Your task to perform on an android device: Open CNN.com Image 0: 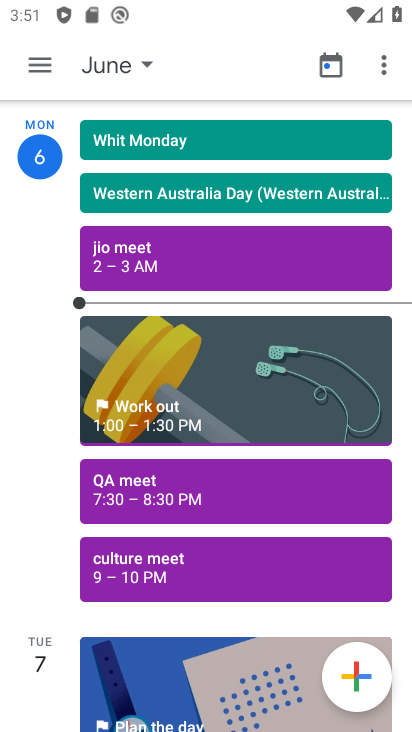
Step 0: press home button
Your task to perform on an android device: Open CNN.com Image 1: 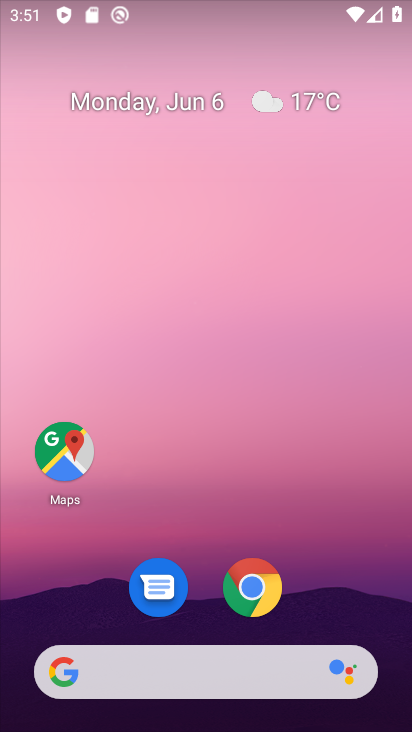
Step 1: drag from (17, 306) to (404, 268)
Your task to perform on an android device: Open CNN.com Image 2: 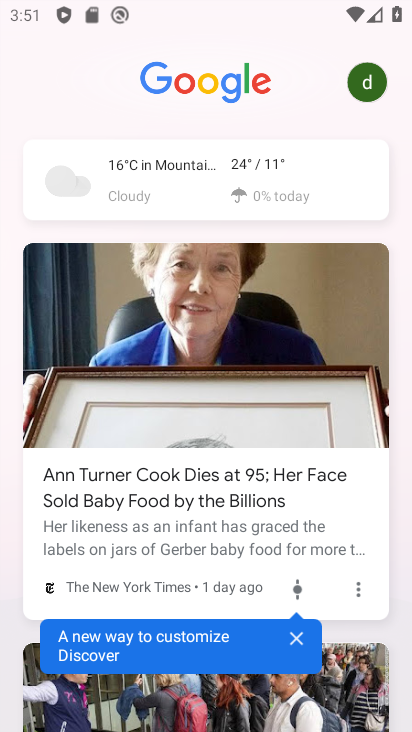
Step 2: press home button
Your task to perform on an android device: Open CNN.com Image 3: 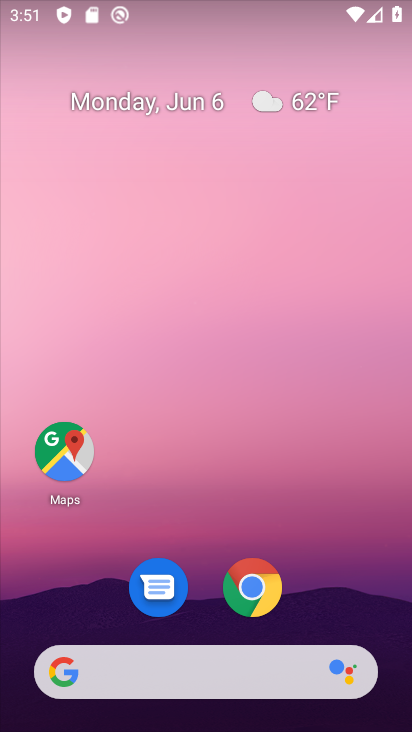
Step 3: click (138, 685)
Your task to perform on an android device: Open CNN.com Image 4: 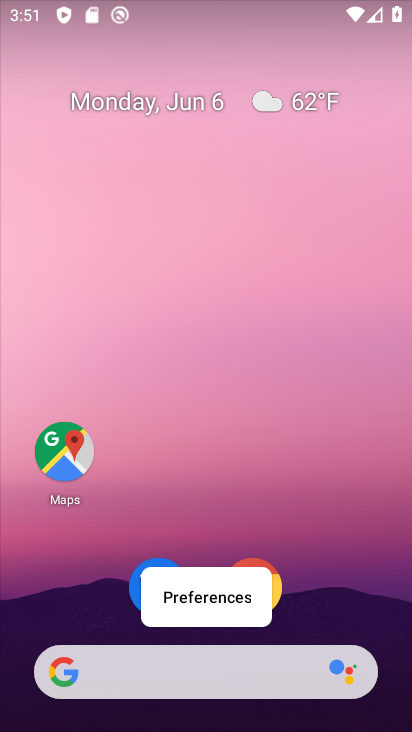
Step 4: click (140, 677)
Your task to perform on an android device: Open CNN.com Image 5: 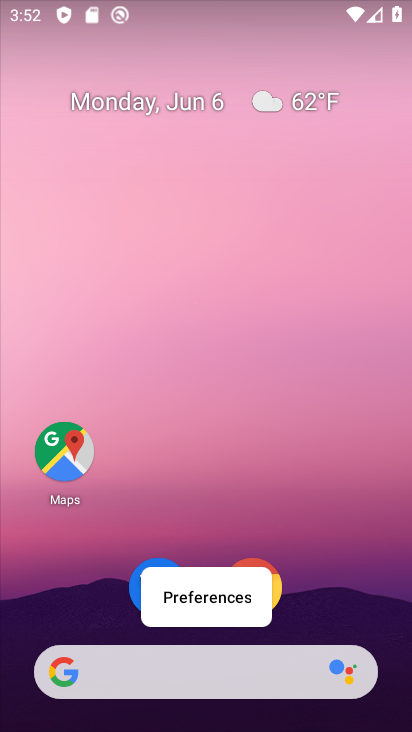
Step 5: click (150, 681)
Your task to perform on an android device: Open CNN.com Image 6: 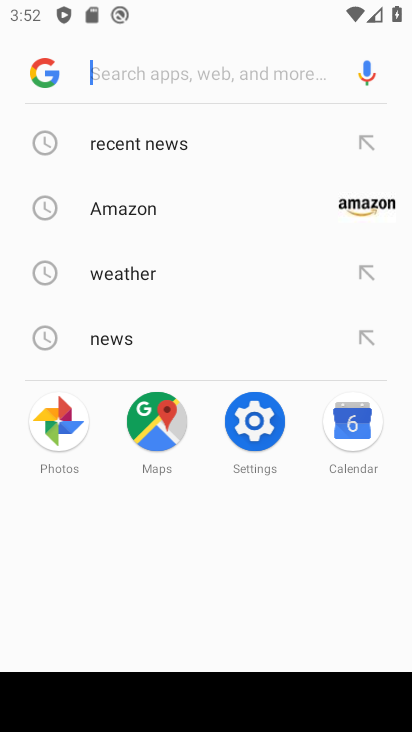
Step 6: type "CNN.com"
Your task to perform on an android device: Open CNN.com Image 7: 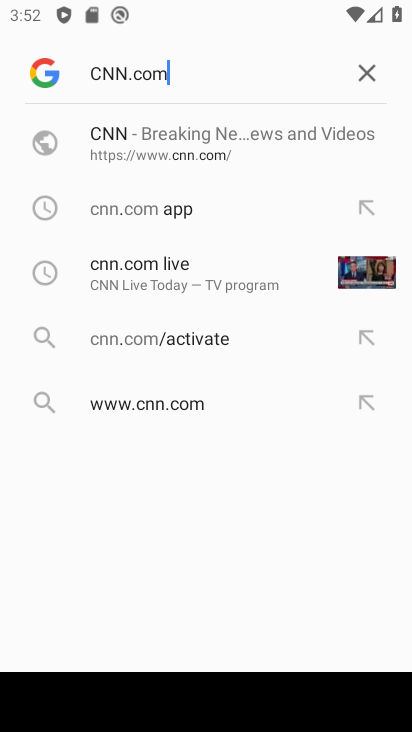
Step 7: click (188, 158)
Your task to perform on an android device: Open CNN.com Image 8: 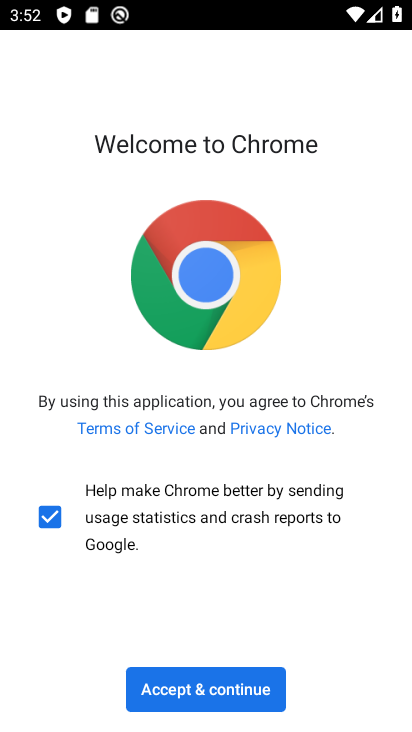
Step 8: click (189, 703)
Your task to perform on an android device: Open CNN.com Image 9: 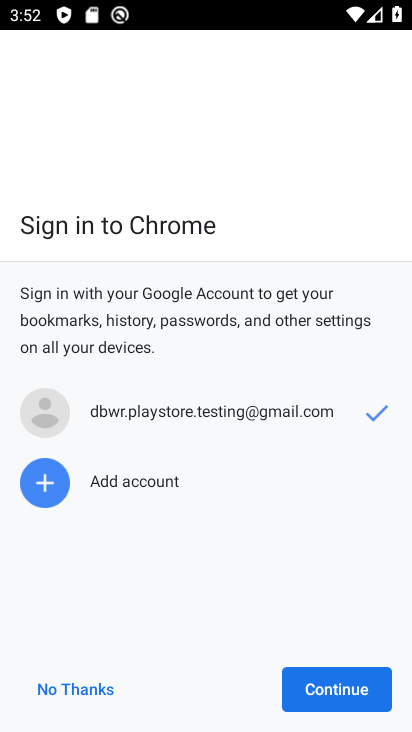
Step 9: click (188, 705)
Your task to perform on an android device: Open CNN.com Image 10: 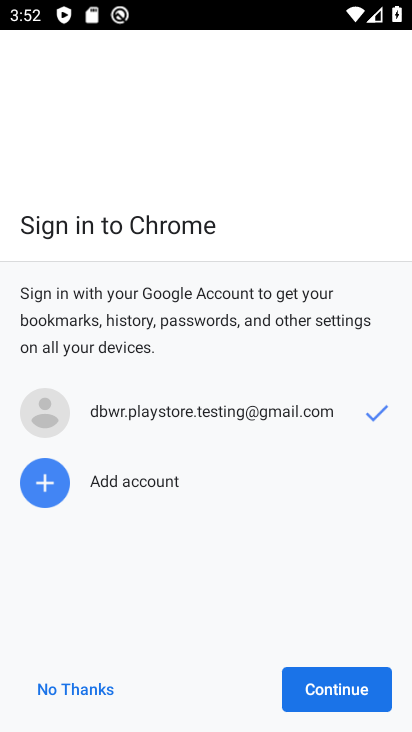
Step 10: click (260, 701)
Your task to perform on an android device: Open CNN.com Image 11: 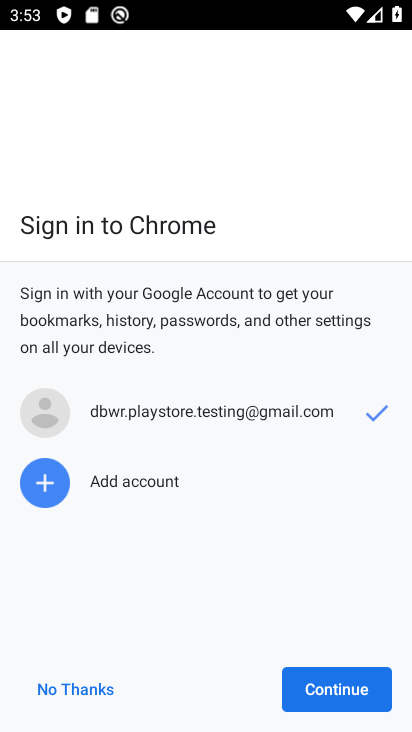
Step 11: click (349, 704)
Your task to perform on an android device: Open CNN.com Image 12: 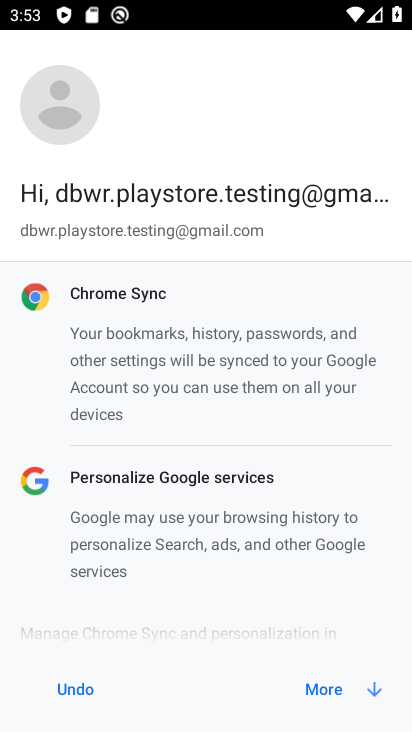
Step 12: click (346, 704)
Your task to perform on an android device: Open CNN.com Image 13: 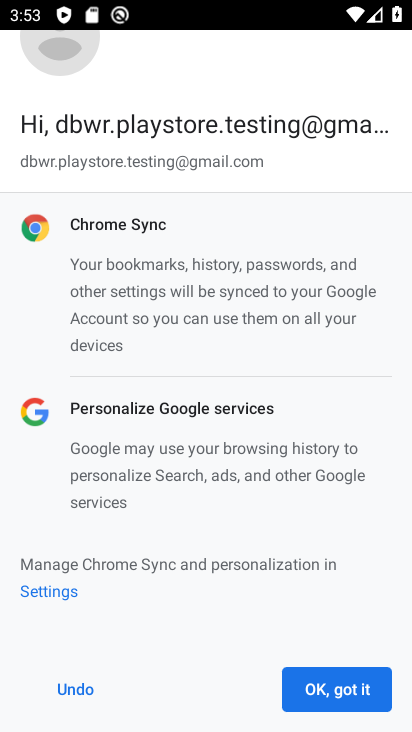
Step 13: click (340, 701)
Your task to perform on an android device: Open CNN.com Image 14: 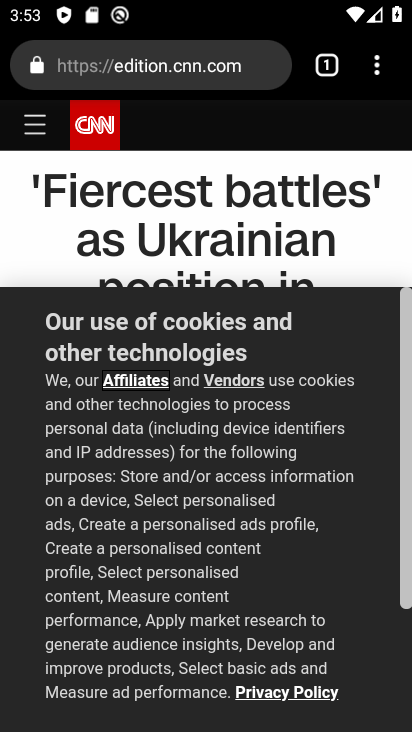
Step 14: task complete